Your task to perform on an android device: toggle notifications settings in the gmail app Image 0: 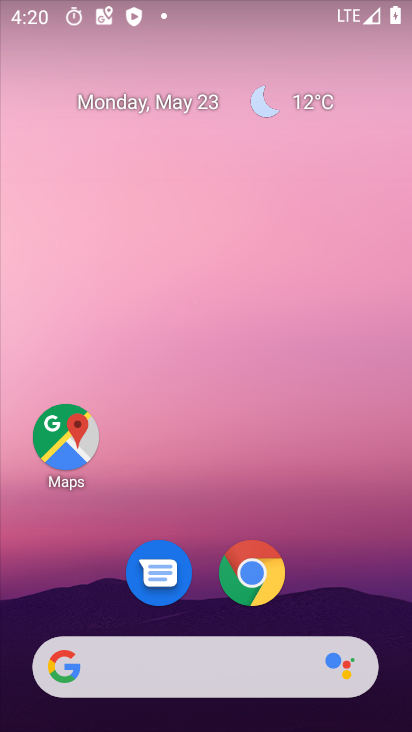
Step 0: drag from (27, 576) to (259, 196)
Your task to perform on an android device: toggle notifications settings in the gmail app Image 1: 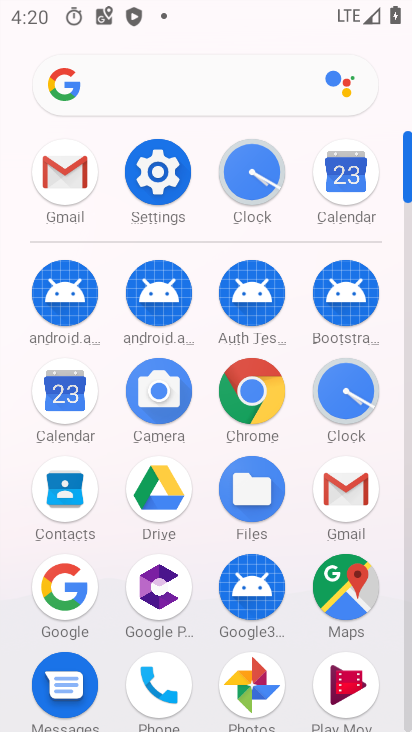
Step 1: click (60, 172)
Your task to perform on an android device: toggle notifications settings in the gmail app Image 2: 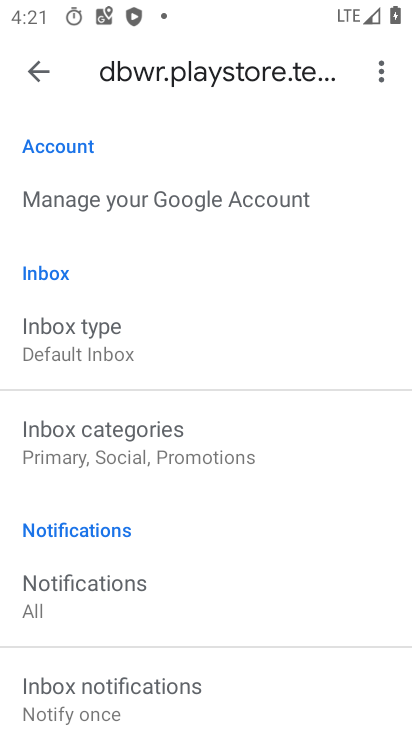
Step 2: drag from (82, 672) to (270, 236)
Your task to perform on an android device: toggle notifications settings in the gmail app Image 3: 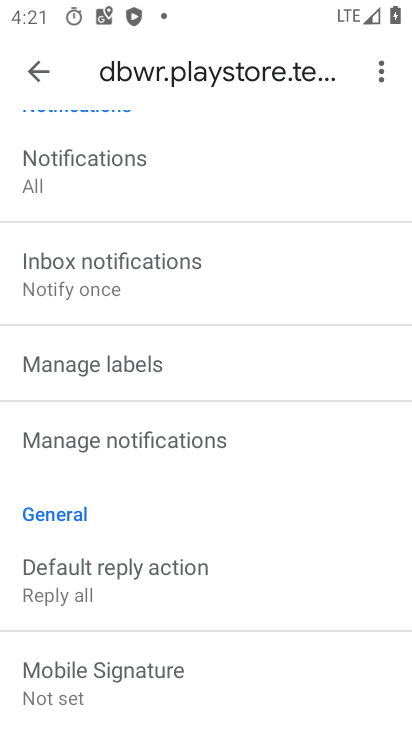
Step 3: click (167, 431)
Your task to perform on an android device: toggle notifications settings in the gmail app Image 4: 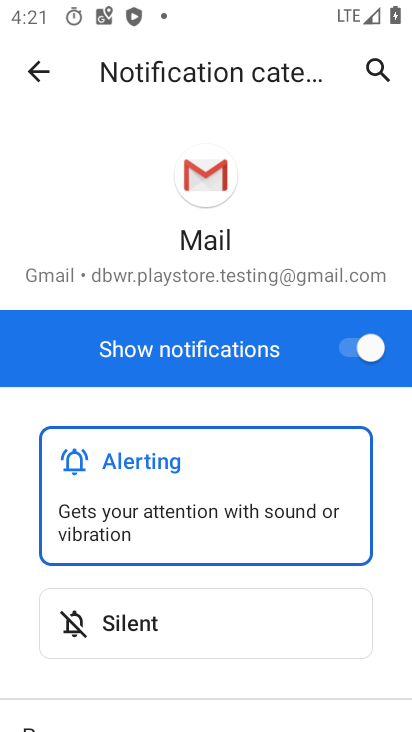
Step 4: click (380, 349)
Your task to perform on an android device: toggle notifications settings in the gmail app Image 5: 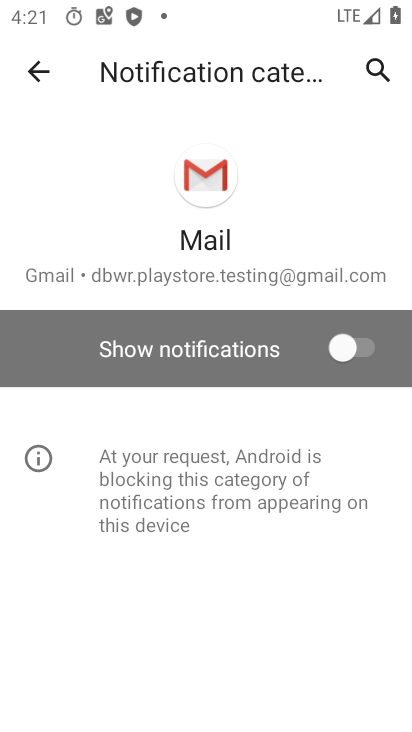
Step 5: task complete